Your task to perform on an android device: Open the web browser Image 0: 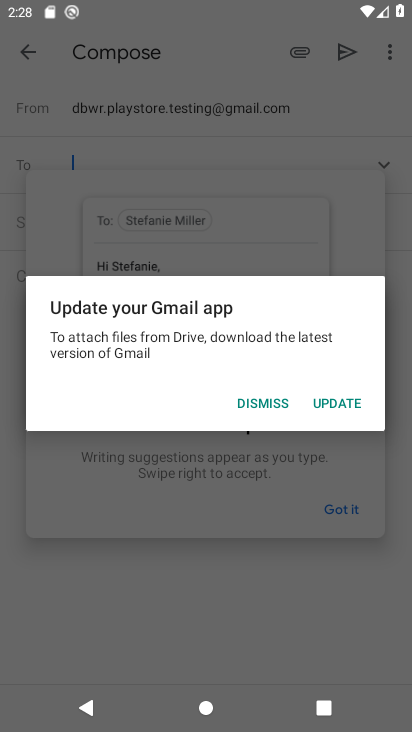
Step 0: press home button
Your task to perform on an android device: Open the web browser Image 1: 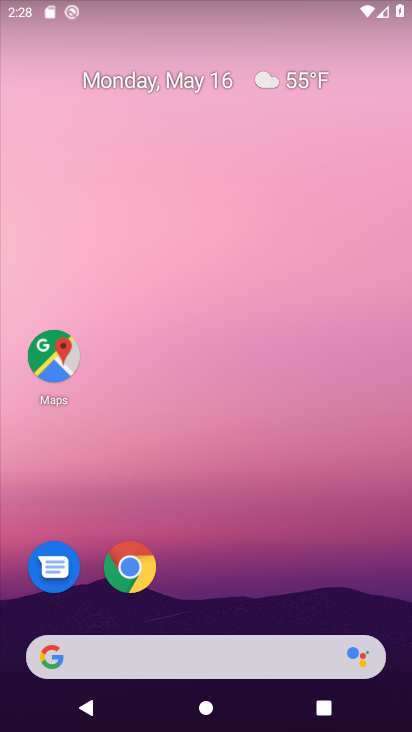
Step 1: click (125, 553)
Your task to perform on an android device: Open the web browser Image 2: 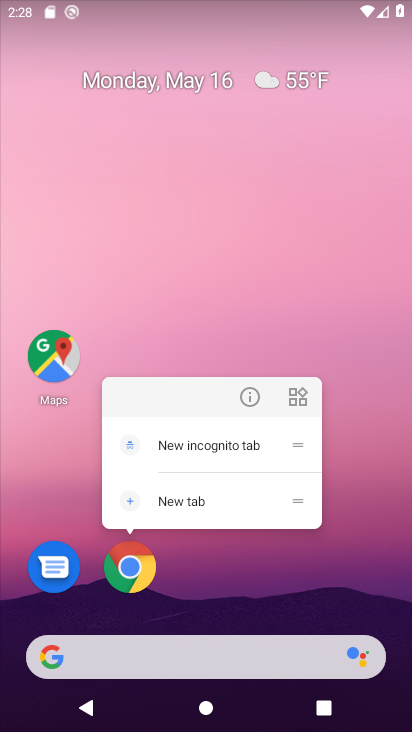
Step 2: click (126, 553)
Your task to perform on an android device: Open the web browser Image 3: 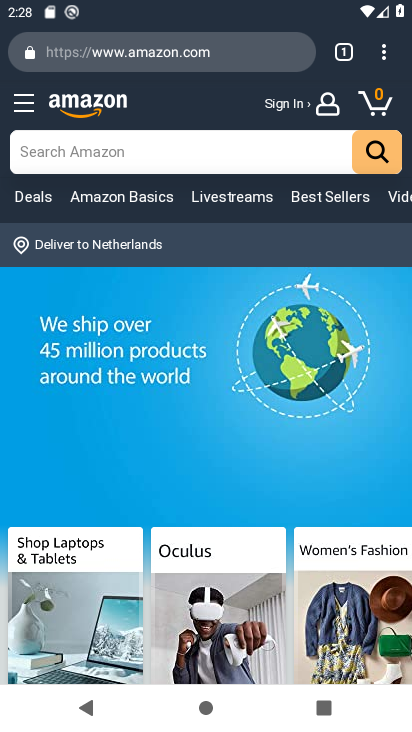
Step 3: task complete